Your task to perform on an android device: set the stopwatch Image 0: 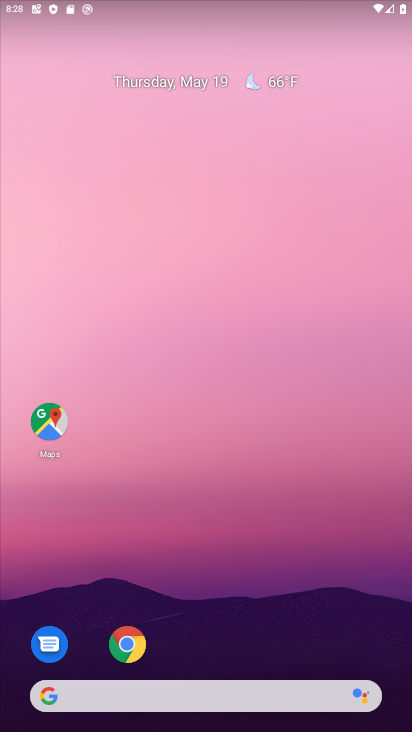
Step 0: drag from (340, 619) to (333, 257)
Your task to perform on an android device: set the stopwatch Image 1: 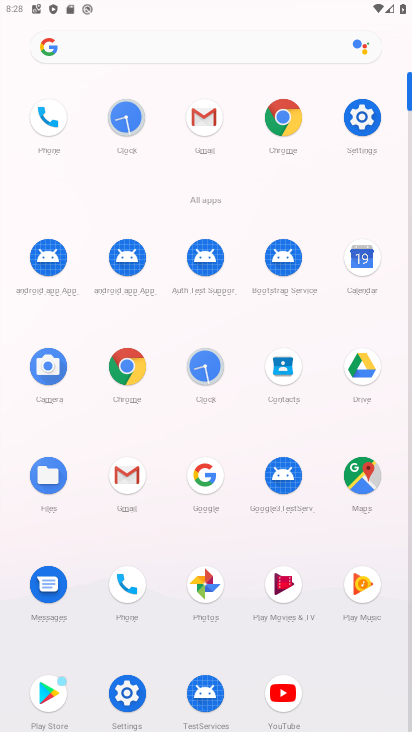
Step 1: click (128, 125)
Your task to perform on an android device: set the stopwatch Image 2: 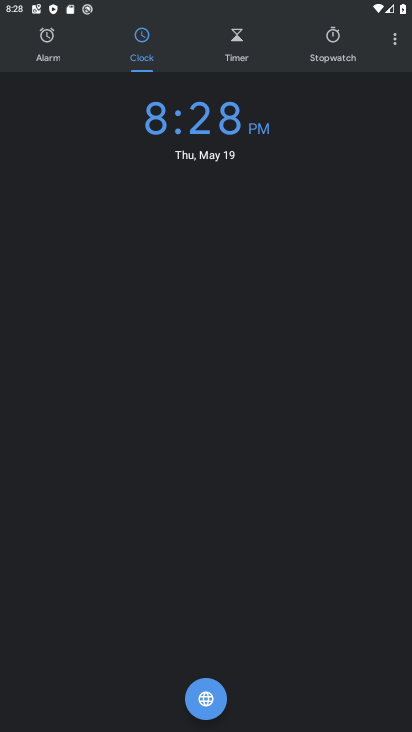
Step 2: click (330, 42)
Your task to perform on an android device: set the stopwatch Image 3: 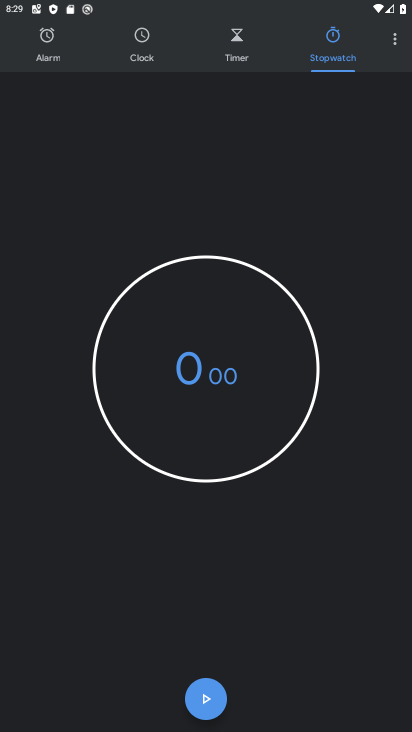
Step 3: click (207, 695)
Your task to perform on an android device: set the stopwatch Image 4: 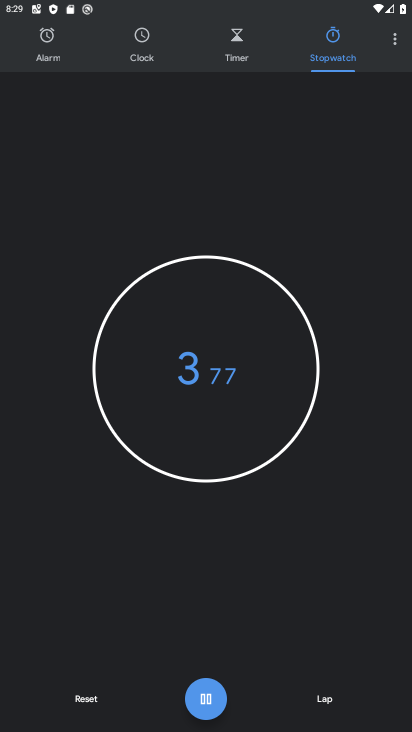
Step 4: click (206, 694)
Your task to perform on an android device: set the stopwatch Image 5: 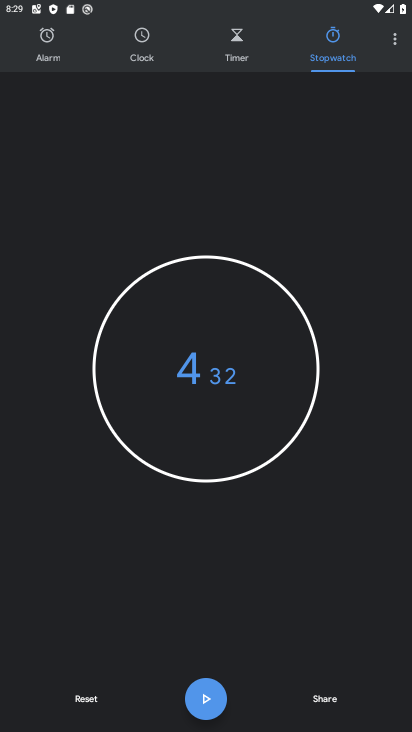
Step 5: task complete